Your task to perform on an android device: Open calendar and show me the third week of next month Image 0: 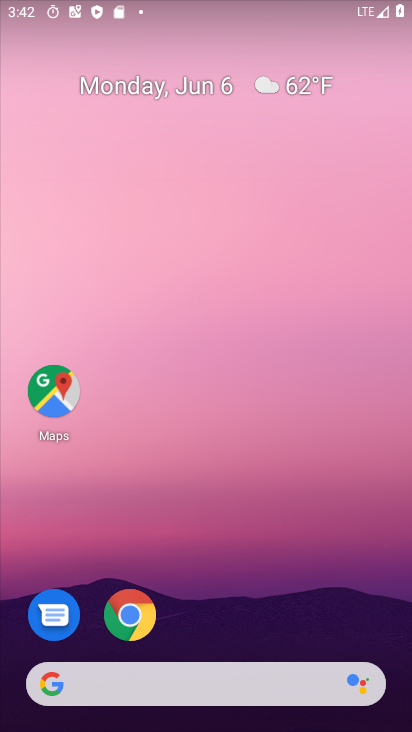
Step 0: drag from (234, 682) to (410, 47)
Your task to perform on an android device: Open calendar and show me the third week of next month Image 1: 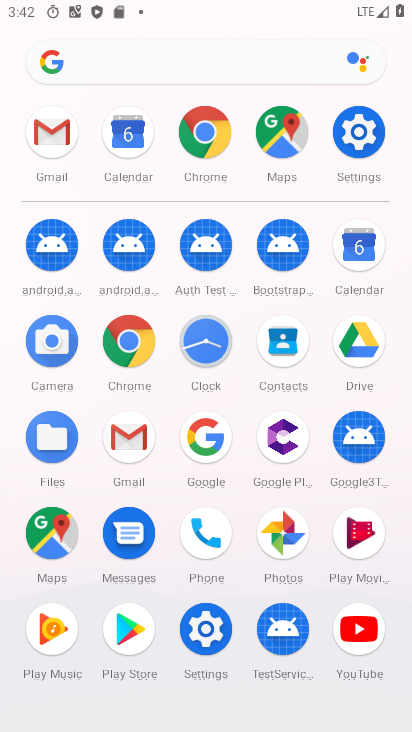
Step 1: click (370, 246)
Your task to perform on an android device: Open calendar and show me the third week of next month Image 2: 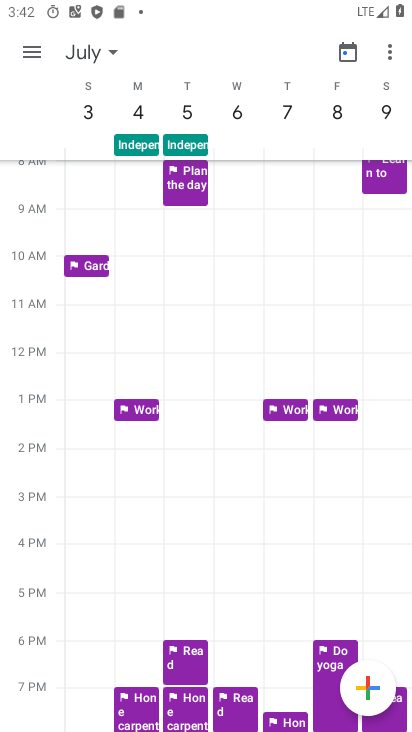
Step 2: click (101, 56)
Your task to perform on an android device: Open calendar and show me the third week of next month Image 3: 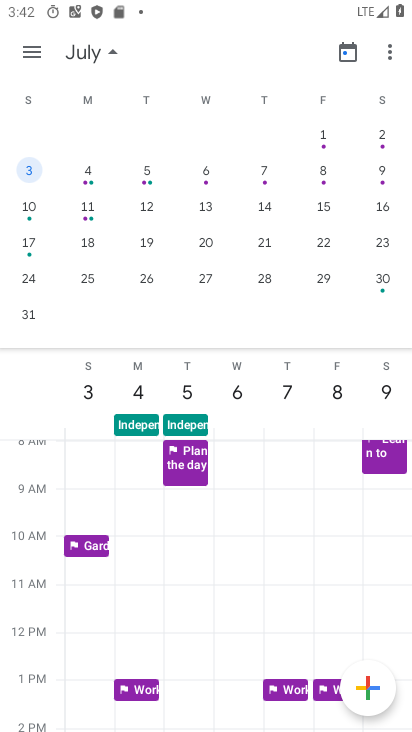
Step 3: drag from (83, 259) to (373, 242)
Your task to perform on an android device: Open calendar and show me the third week of next month Image 4: 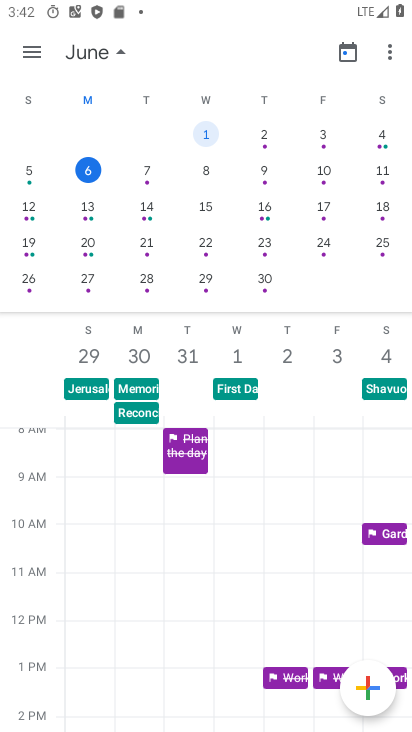
Step 4: drag from (373, 242) to (1, 252)
Your task to perform on an android device: Open calendar and show me the third week of next month Image 5: 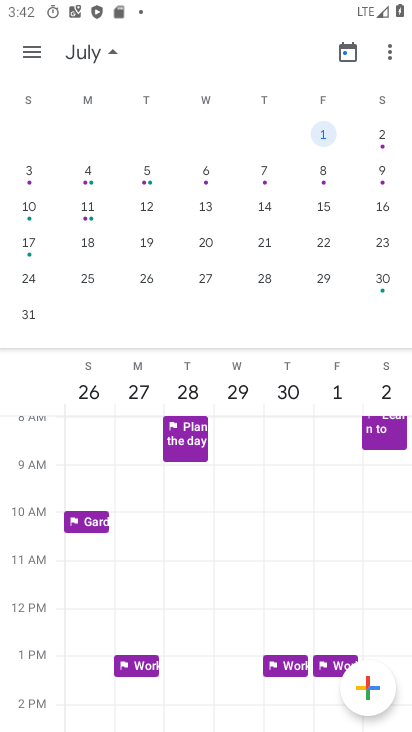
Step 5: click (259, 212)
Your task to perform on an android device: Open calendar and show me the third week of next month Image 6: 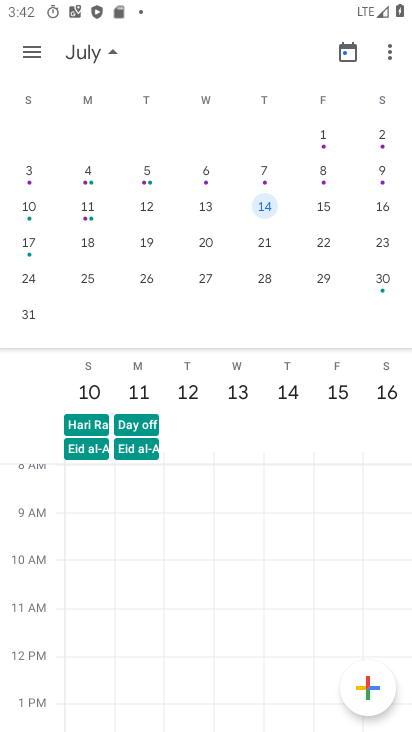
Step 6: task complete